Your task to perform on an android device: Open internet settings Image 0: 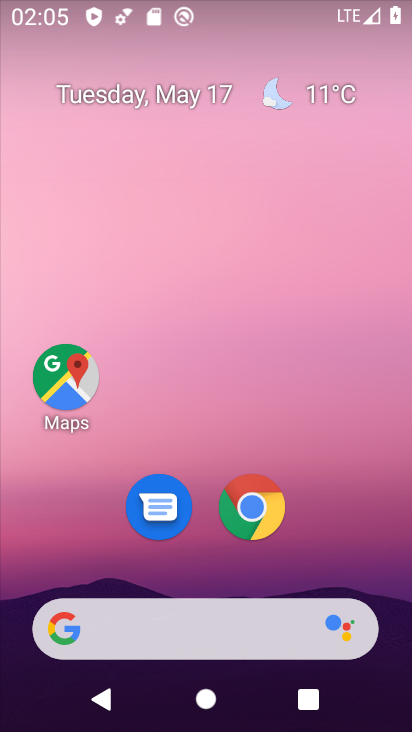
Step 0: drag from (207, 588) to (371, 100)
Your task to perform on an android device: Open internet settings Image 1: 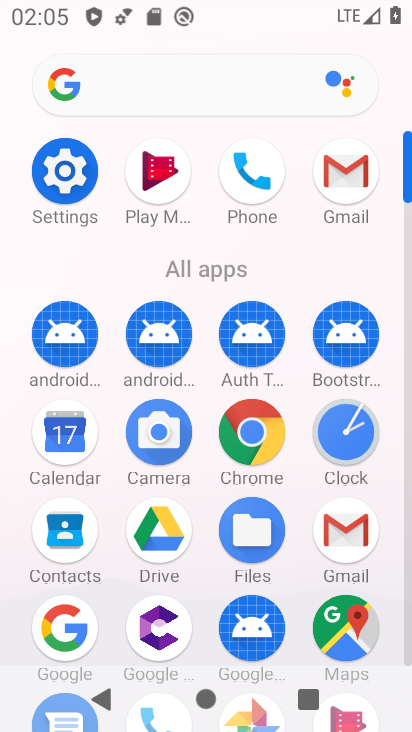
Step 1: click (65, 150)
Your task to perform on an android device: Open internet settings Image 2: 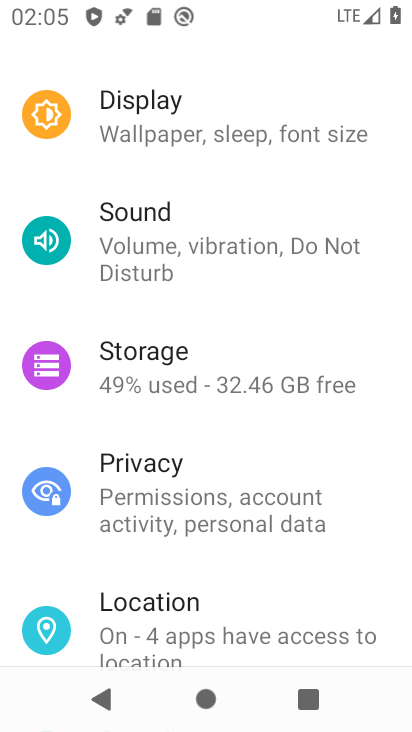
Step 2: click (65, 150)
Your task to perform on an android device: Open internet settings Image 3: 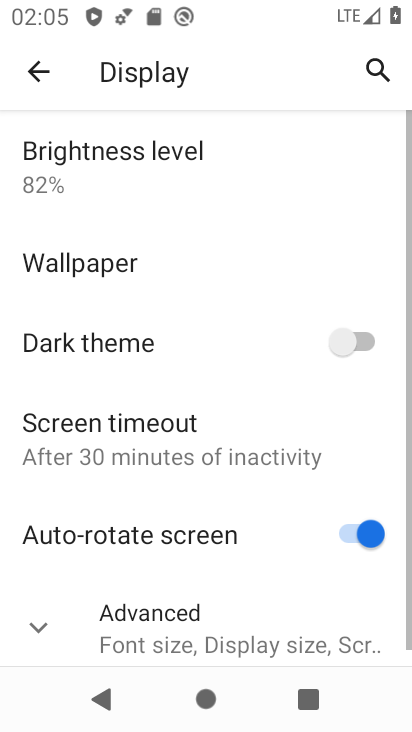
Step 3: drag from (213, 202) to (249, 523)
Your task to perform on an android device: Open internet settings Image 4: 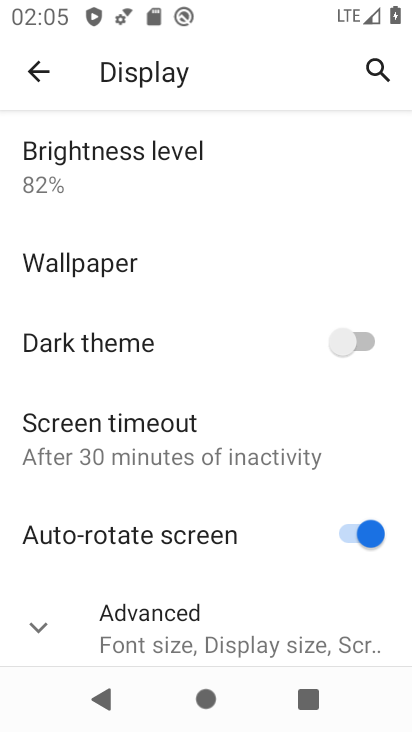
Step 4: drag from (234, 14) to (63, 731)
Your task to perform on an android device: Open internet settings Image 5: 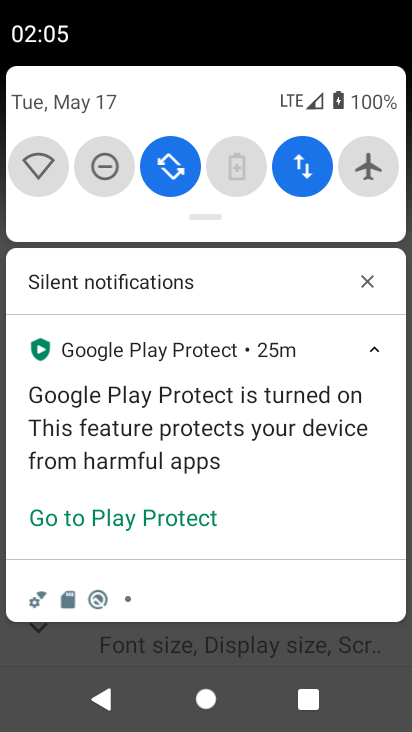
Step 5: click (306, 195)
Your task to perform on an android device: Open internet settings Image 6: 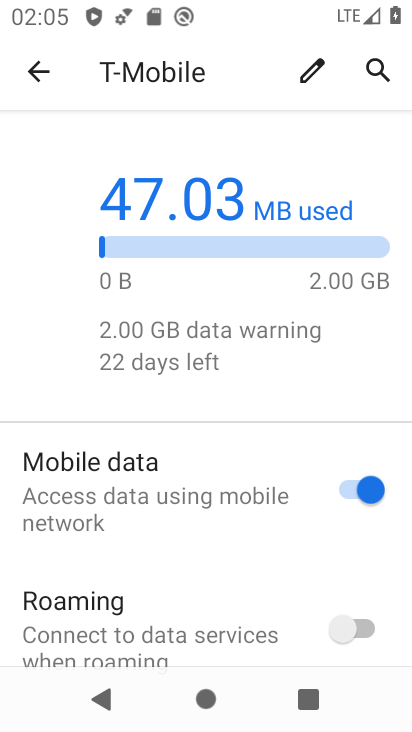
Step 6: task complete